Your task to perform on an android device: uninstall "Reddit" Image 0: 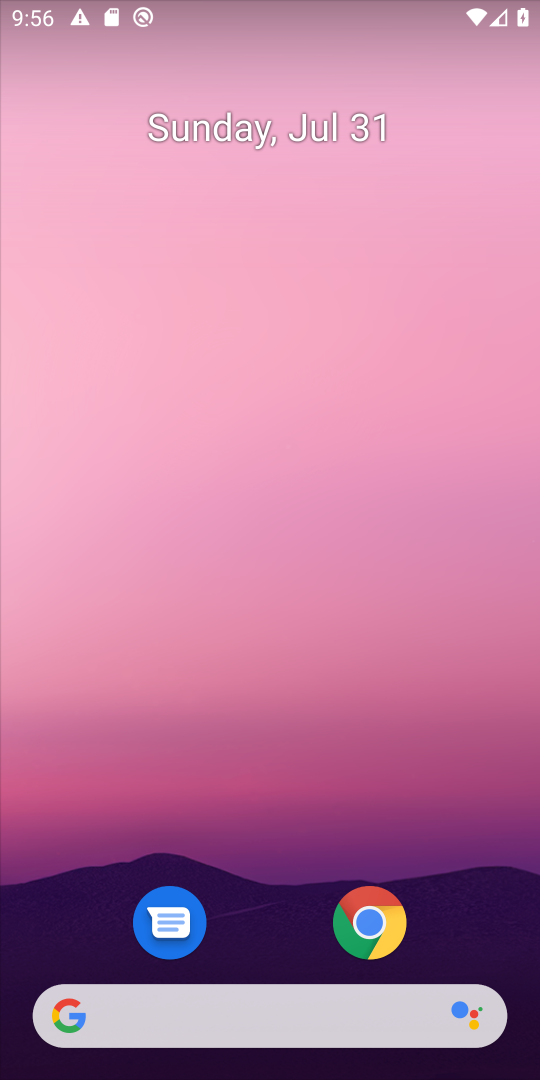
Step 0: drag from (262, 1064) to (289, 264)
Your task to perform on an android device: uninstall "Reddit" Image 1: 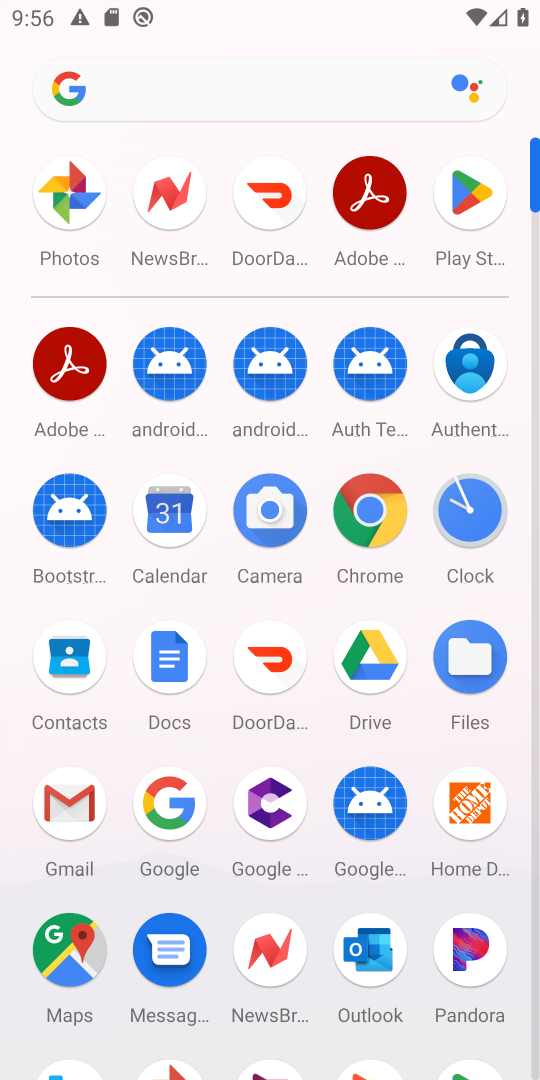
Step 1: click (467, 198)
Your task to perform on an android device: uninstall "Reddit" Image 2: 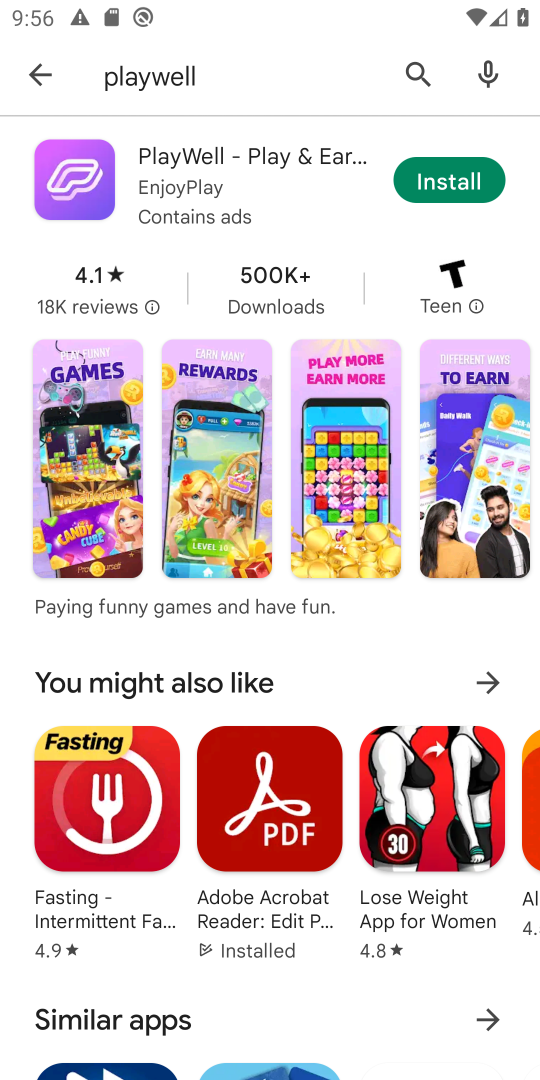
Step 2: task complete